Your task to perform on an android device: Go to ESPN.com Image 0: 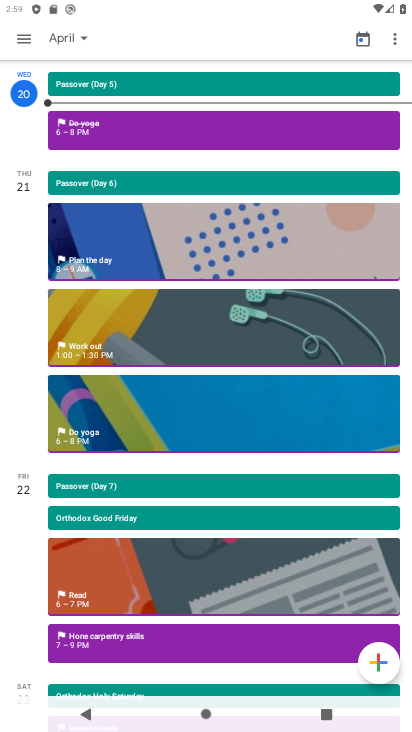
Step 0: press home button
Your task to perform on an android device: Go to ESPN.com Image 1: 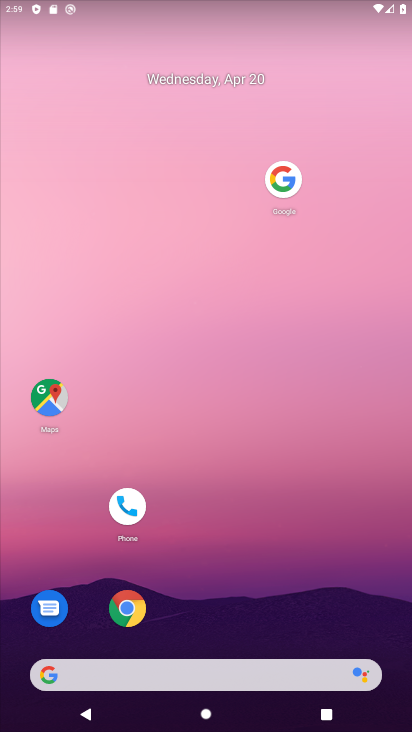
Step 1: click (123, 606)
Your task to perform on an android device: Go to ESPN.com Image 2: 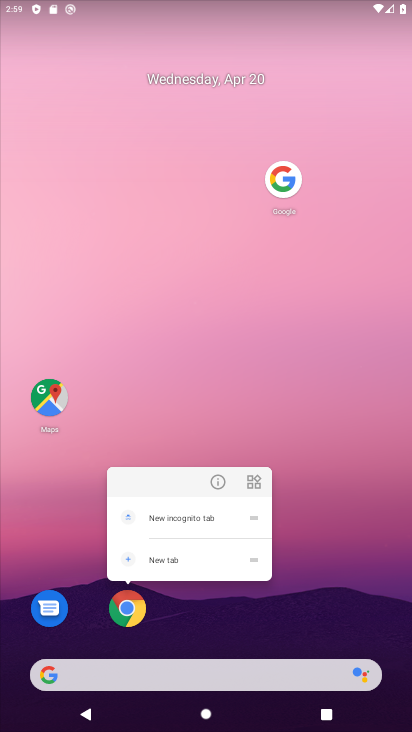
Step 2: click (129, 616)
Your task to perform on an android device: Go to ESPN.com Image 3: 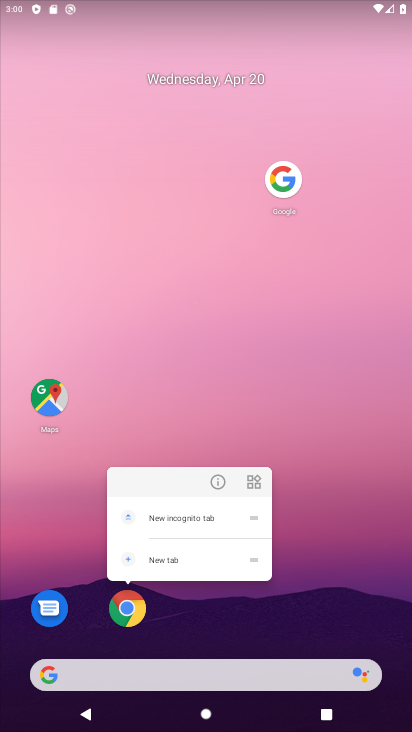
Step 3: click (131, 616)
Your task to perform on an android device: Go to ESPN.com Image 4: 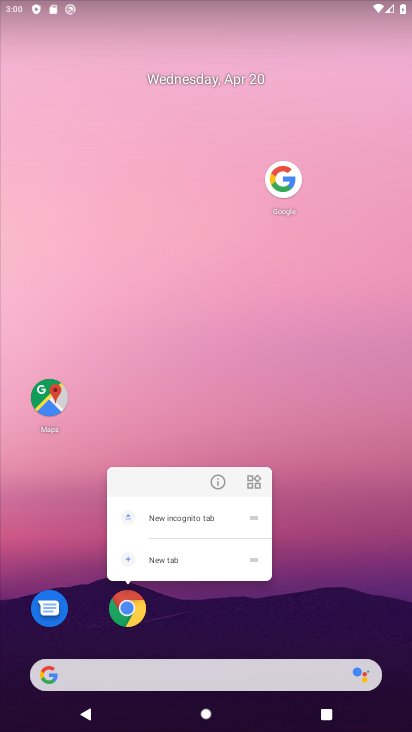
Step 4: drag from (338, 431) to (394, 76)
Your task to perform on an android device: Go to ESPN.com Image 5: 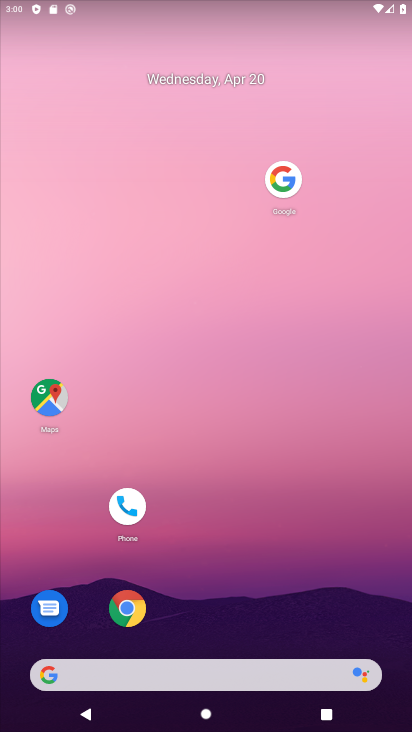
Step 5: drag from (249, 507) to (330, 0)
Your task to perform on an android device: Go to ESPN.com Image 6: 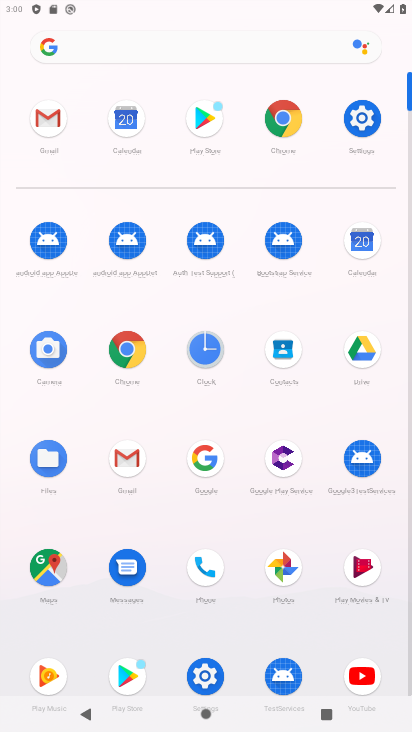
Step 6: click (126, 352)
Your task to perform on an android device: Go to ESPN.com Image 7: 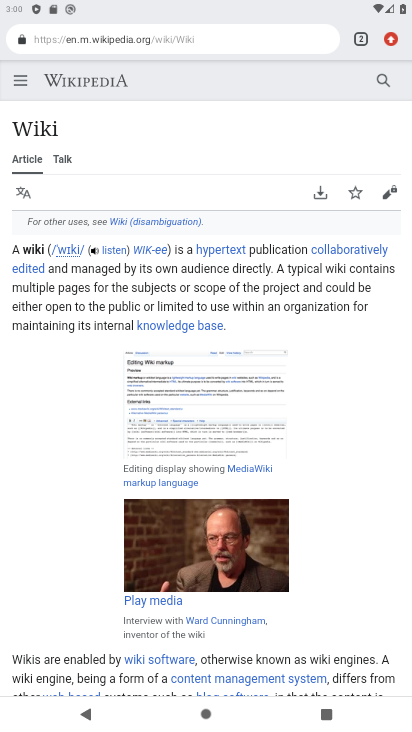
Step 7: click (195, 37)
Your task to perform on an android device: Go to ESPN.com Image 8: 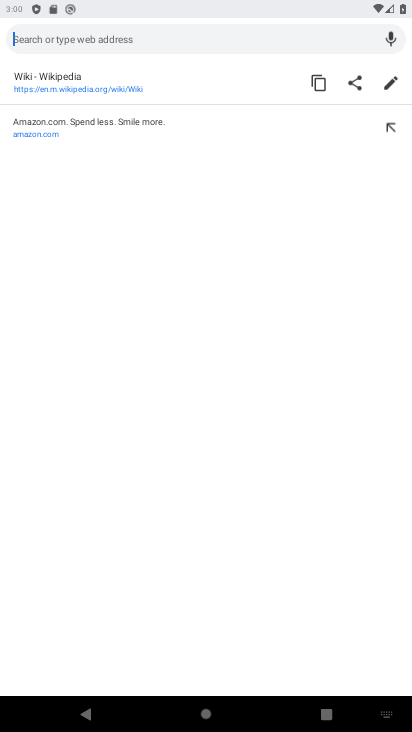
Step 8: type "espn.com"
Your task to perform on an android device: Go to ESPN.com Image 9: 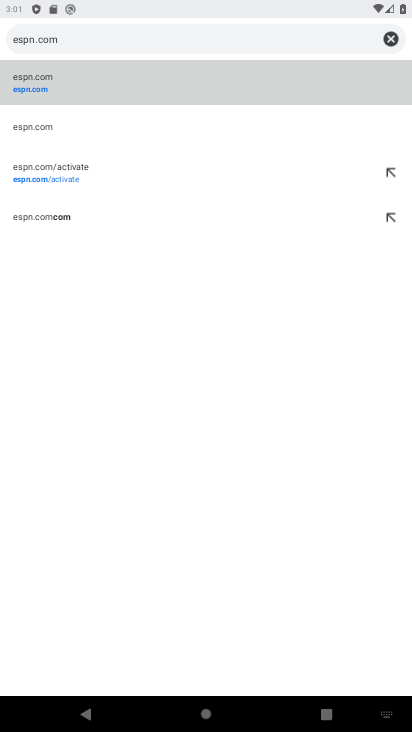
Step 9: click (283, 93)
Your task to perform on an android device: Go to ESPN.com Image 10: 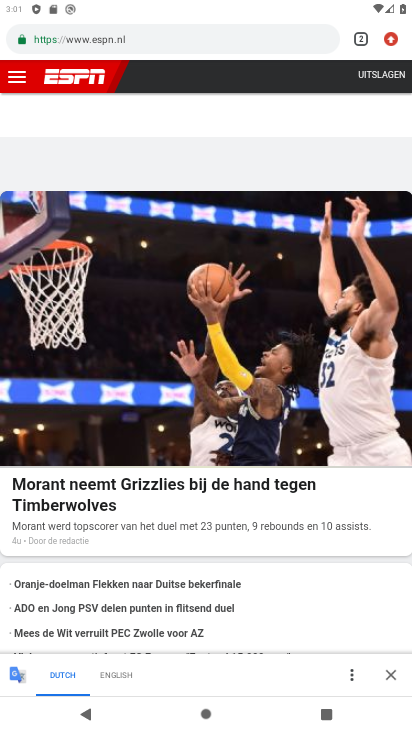
Step 10: task complete